Your task to perform on an android device: Go to network settings Image 0: 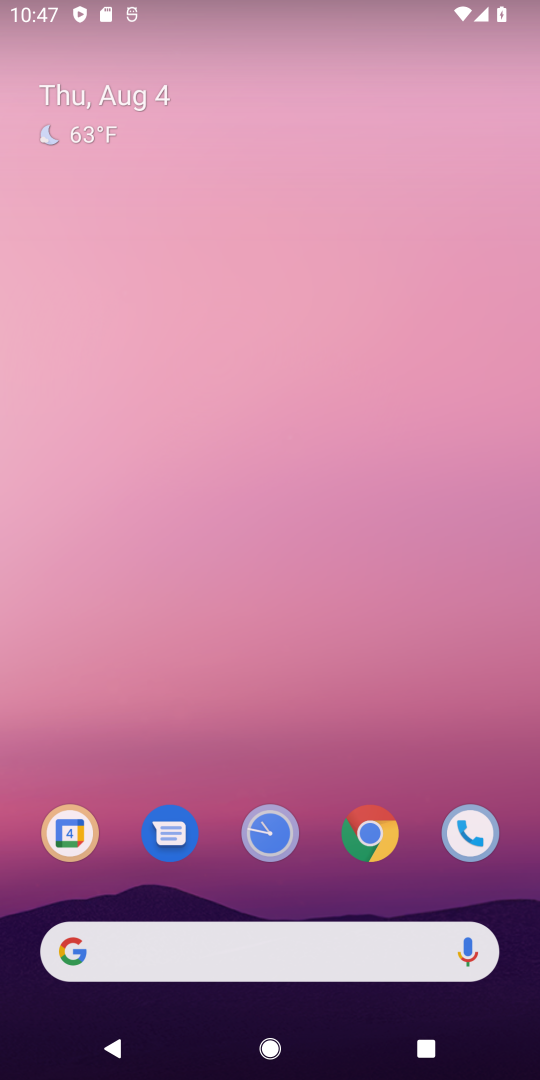
Step 0: press home button
Your task to perform on an android device: Go to network settings Image 1: 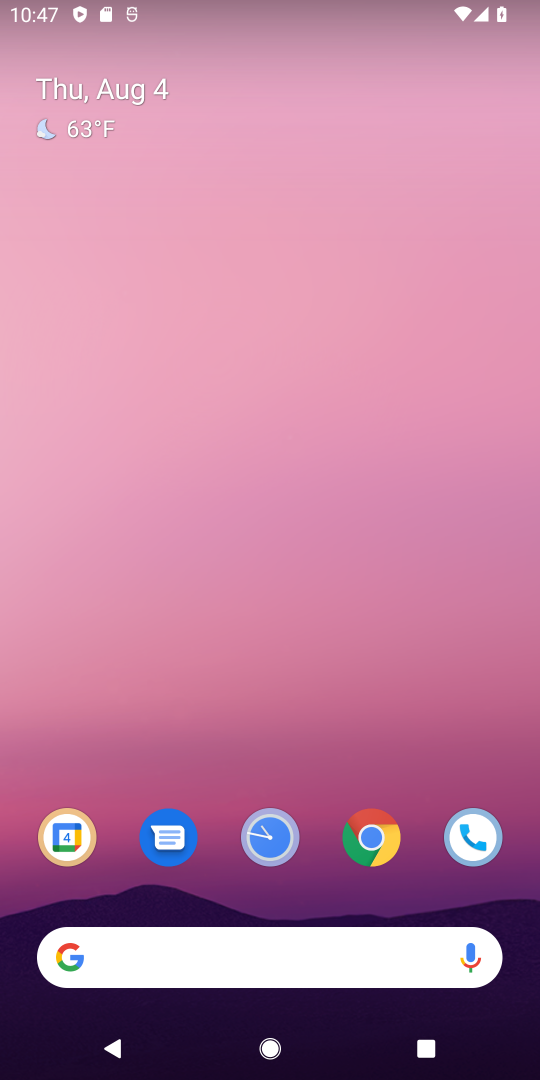
Step 1: drag from (330, 896) to (372, 164)
Your task to perform on an android device: Go to network settings Image 2: 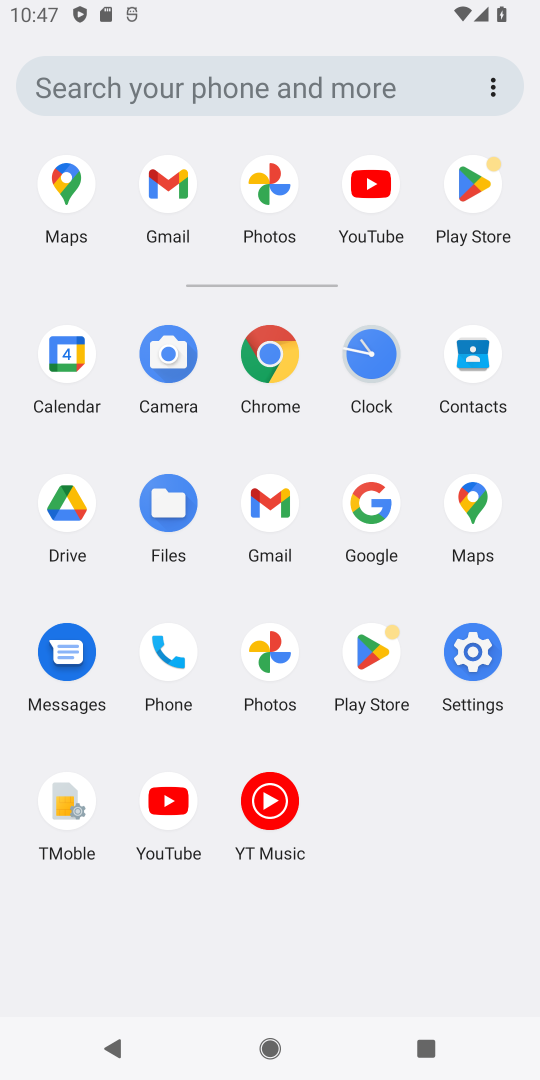
Step 2: click (469, 642)
Your task to perform on an android device: Go to network settings Image 3: 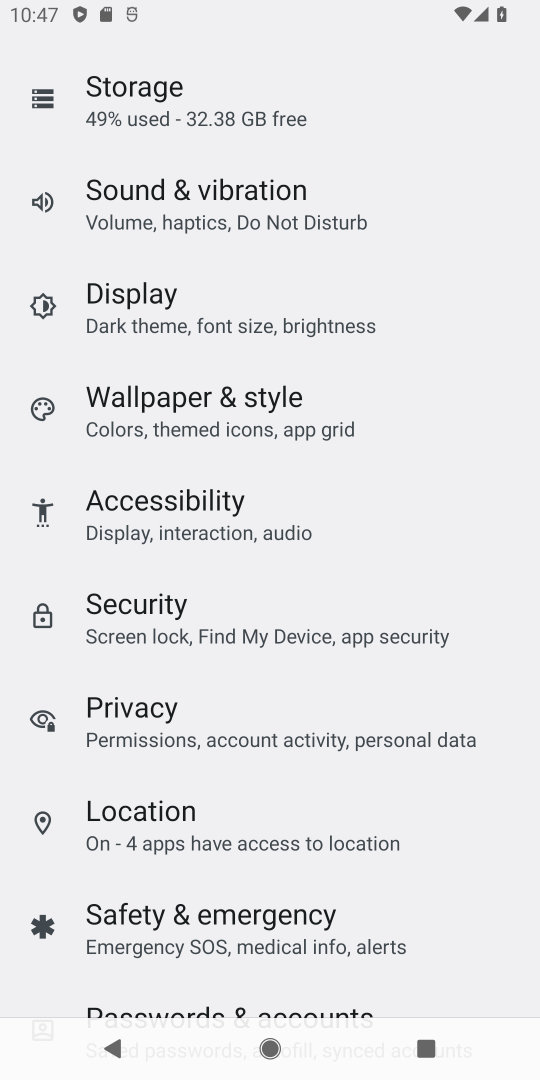
Step 3: drag from (204, 195) to (243, 915)
Your task to perform on an android device: Go to network settings Image 4: 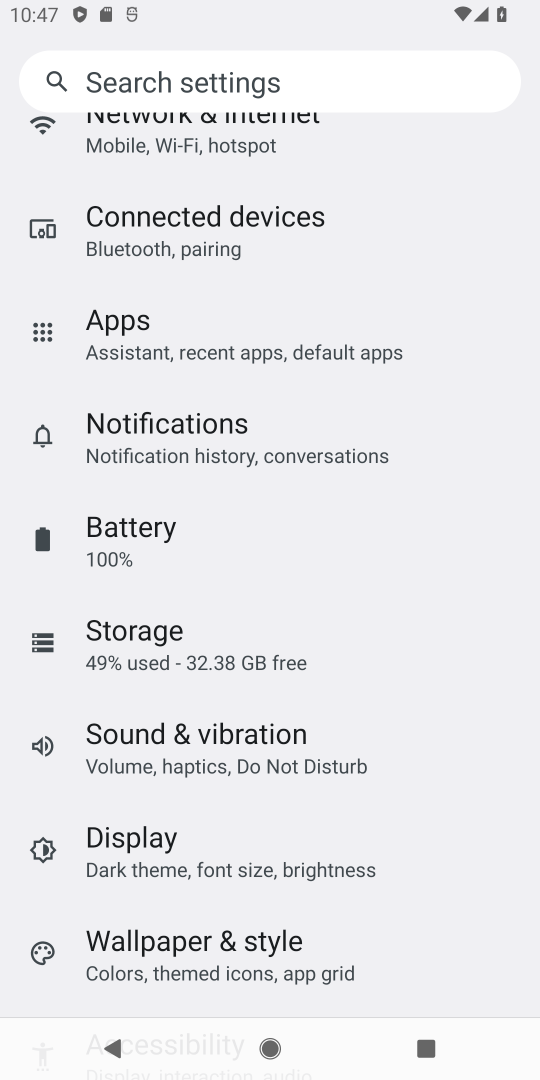
Step 4: drag from (195, 199) to (250, 702)
Your task to perform on an android device: Go to network settings Image 5: 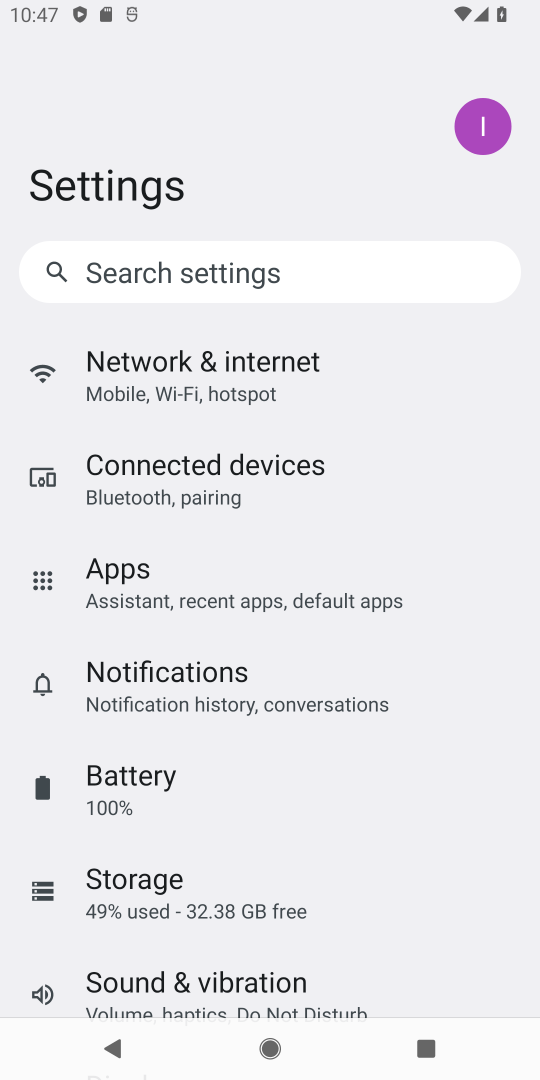
Step 5: click (181, 378)
Your task to perform on an android device: Go to network settings Image 6: 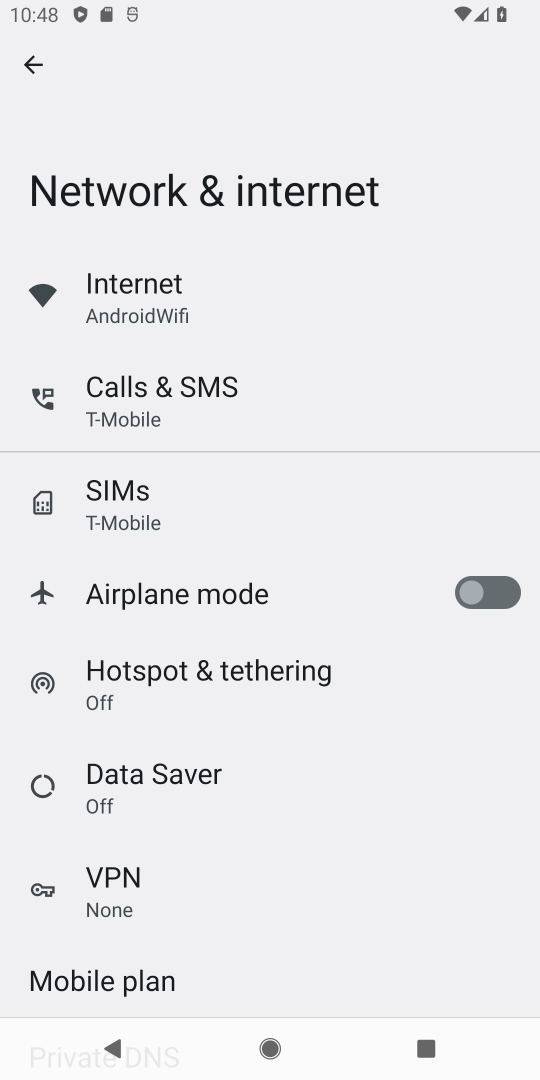
Step 6: task complete